Your task to perform on an android device: Open maps Image 0: 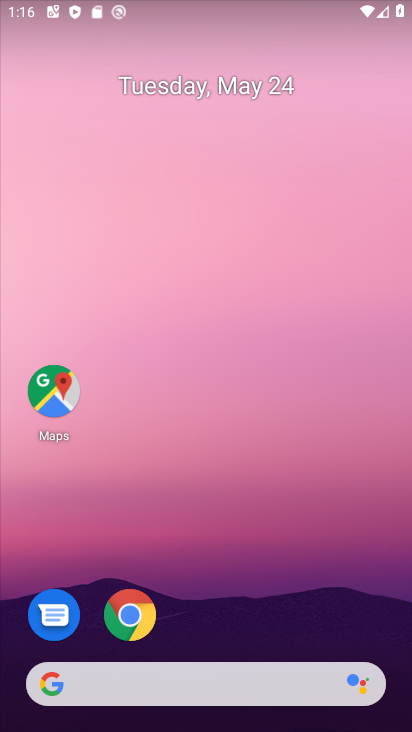
Step 0: click (54, 395)
Your task to perform on an android device: Open maps Image 1: 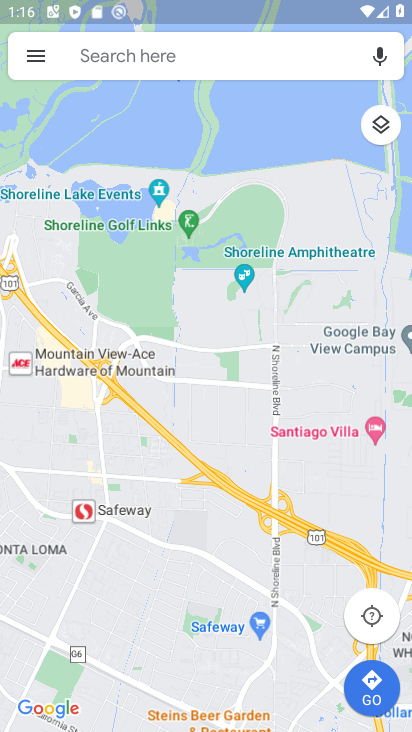
Step 1: task complete